Your task to perform on an android device: snooze an email in the gmail app Image 0: 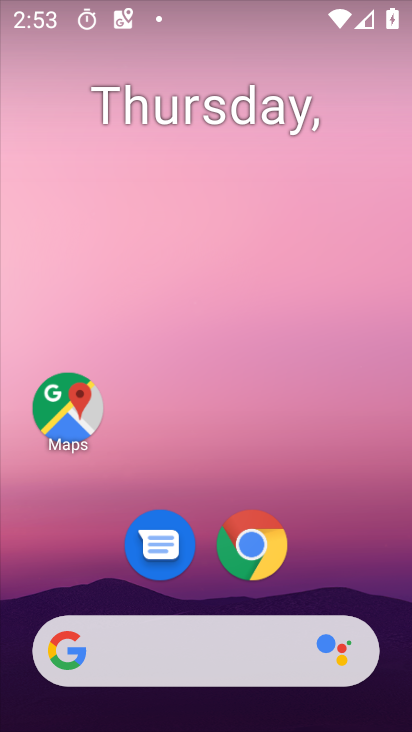
Step 0: drag from (214, 727) to (216, 197)
Your task to perform on an android device: snooze an email in the gmail app Image 1: 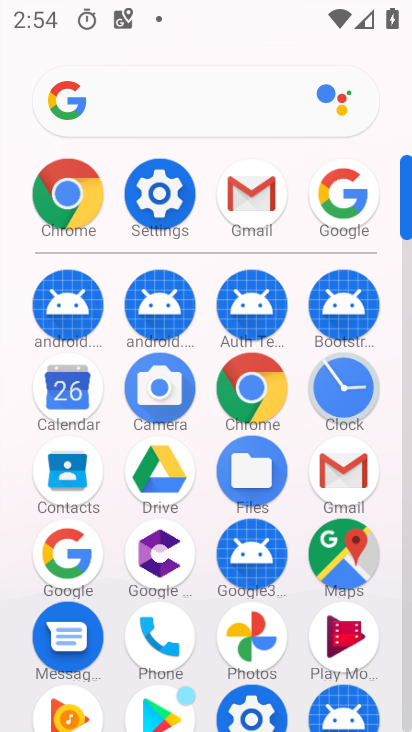
Step 1: click (339, 470)
Your task to perform on an android device: snooze an email in the gmail app Image 2: 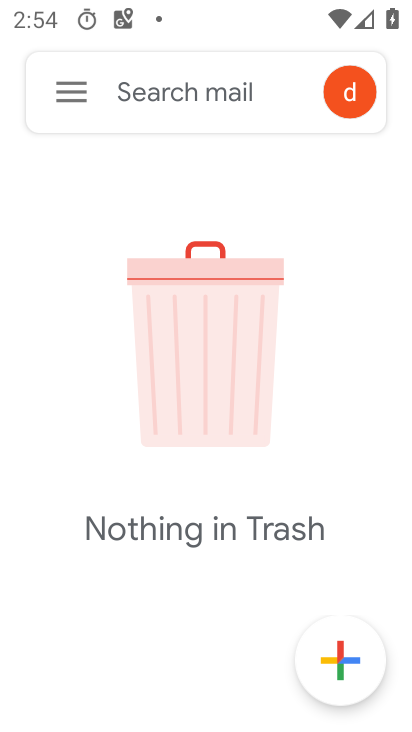
Step 2: click (59, 94)
Your task to perform on an android device: snooze an email in the gmail app Image 3: 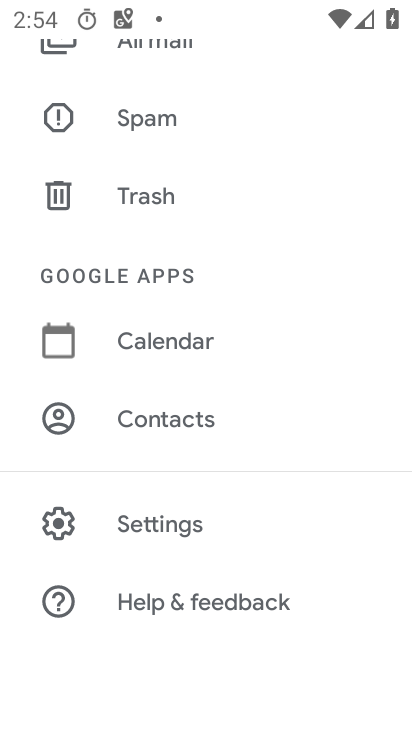
Step 3: drag from (175, 128) to (180, 548)
Your task to perform on an android device: snooze an email in the gmail app Image 4: 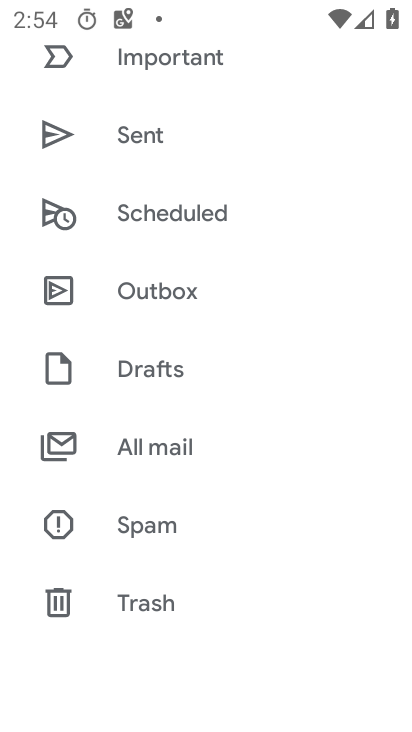
Step 4: drag from (235, 169) to (244, 579)
Your task to perform on an android device: snooze an email in the gmail app Image 5: 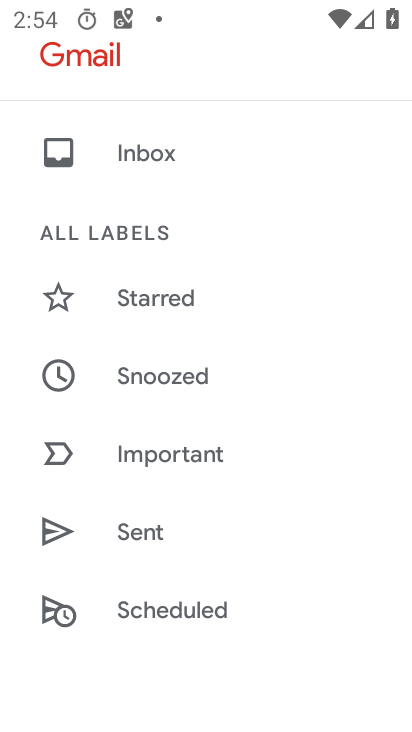
Step 5: click (157, 153)
Your task to perform on an android device: snooze an email in the gmail app Image 6: 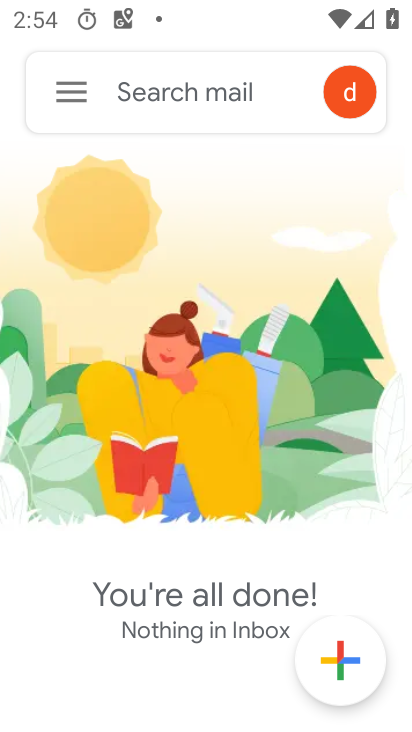
Step 6: task complete